Your task to perform on an android device: Go to Maps Image 0: 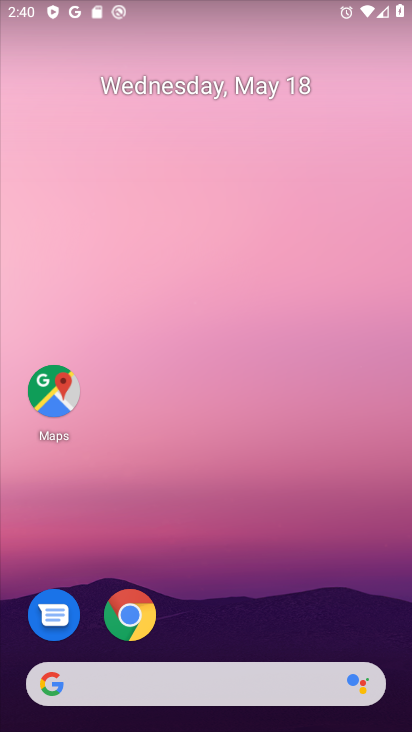
Step 0: click (57, 378)
Your task to perform on an android device: Go to Maps Image 1: 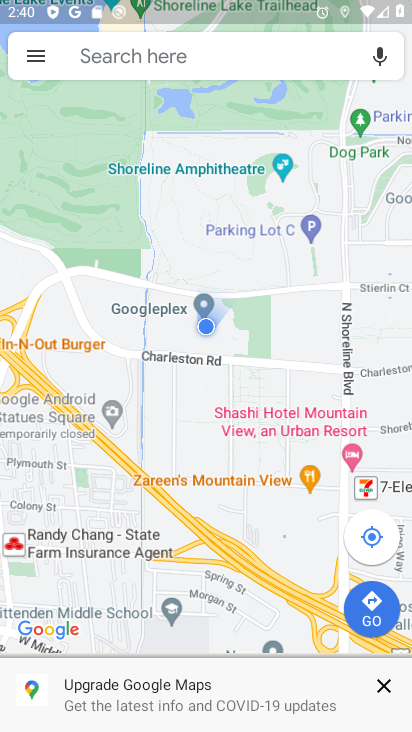
Step 1: task complete